Your task to perform on an android device: open app "Google Find My Device" (install if not already installed) Image 0: 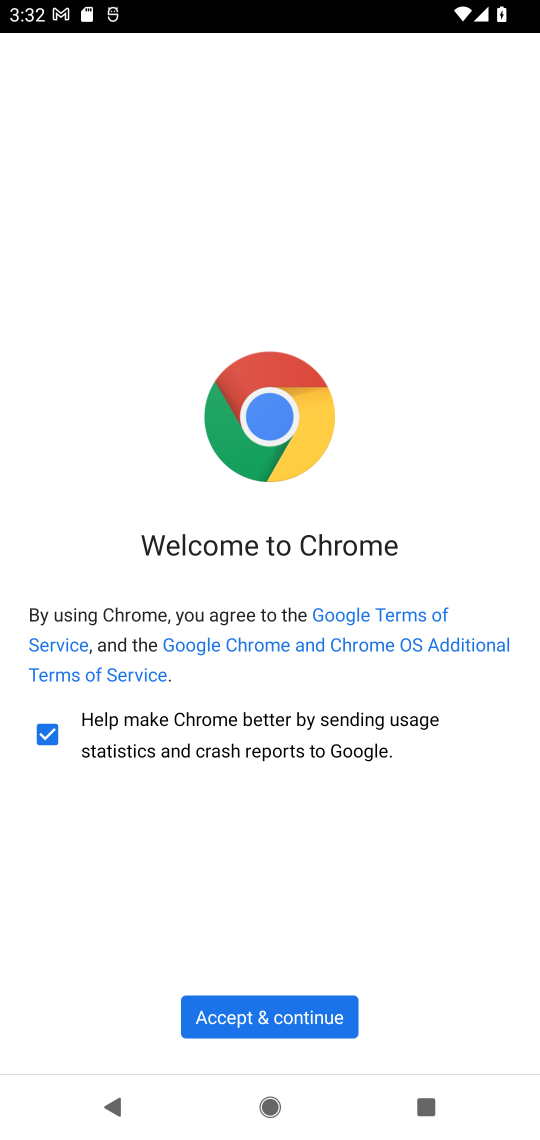
Step 0: press home button
Your task to perform on an android device: open app "Google Find My Device" (install if not already installed) Image 1: 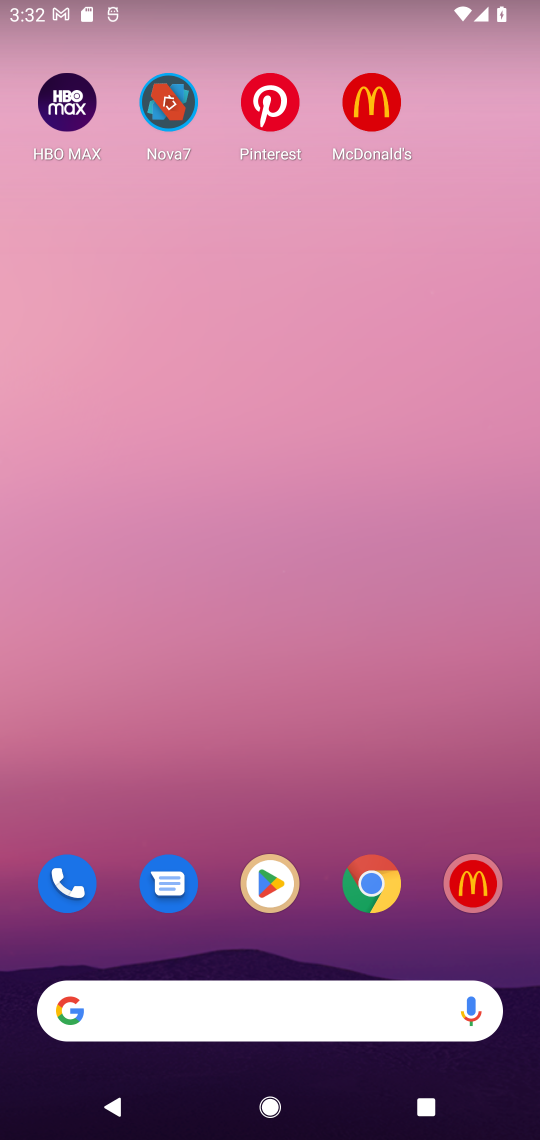
Step 1: drag from (255, 974) to (304, 518)
Your task to perform on an android device: open app "Google Find My Device" (install if not already installed) Image 2: 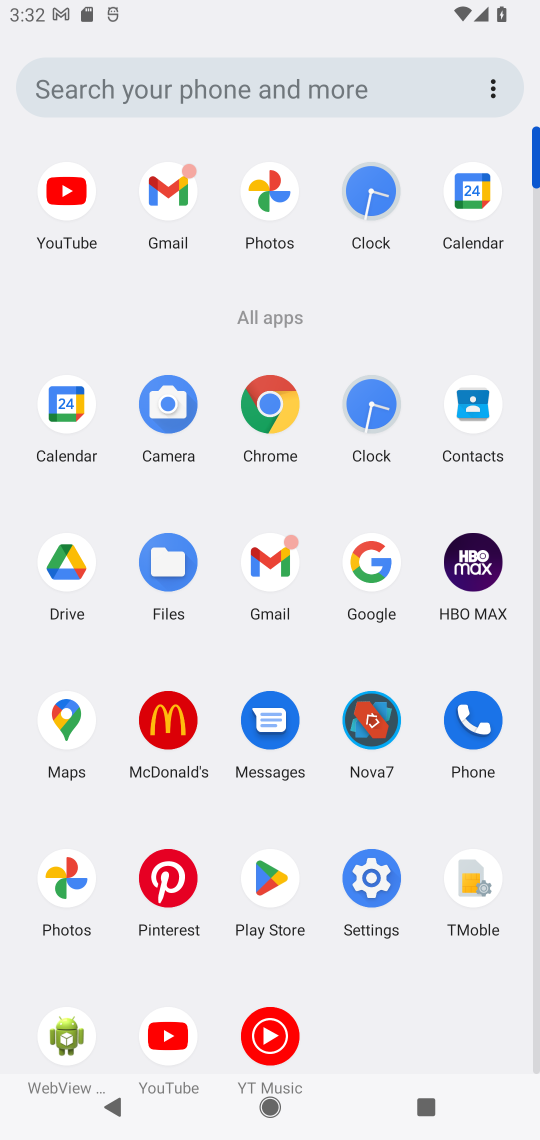
Step 2: click (254, 888)
Your task to perform on an android device: open app "Google Find My Device" (install if not already installed) Image 3: 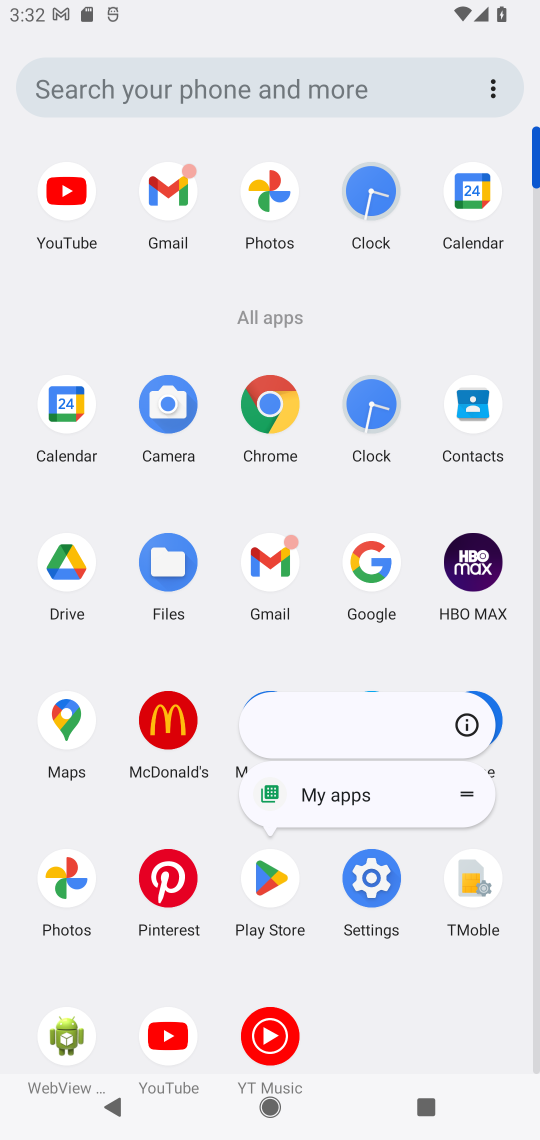
Step 3: click (271, 890)
Your task to perform on an android device: open app "Google Find My Device" (install if not already installed) Image 4: 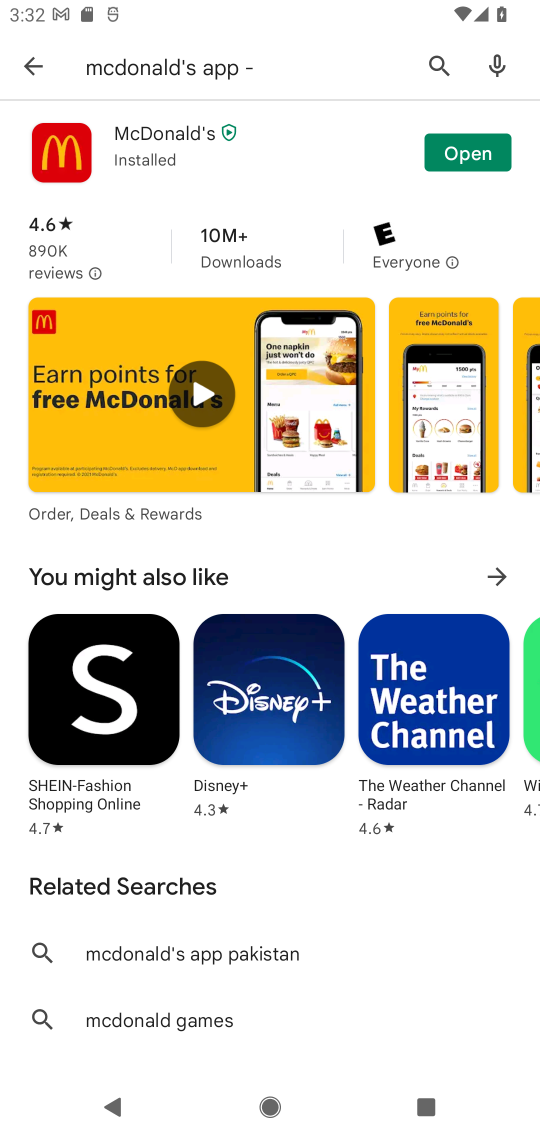
Step 4: click (437, 62)
Your task to perform on an android device: open app "Google Find My Device" (install if not already installed) Image 5: 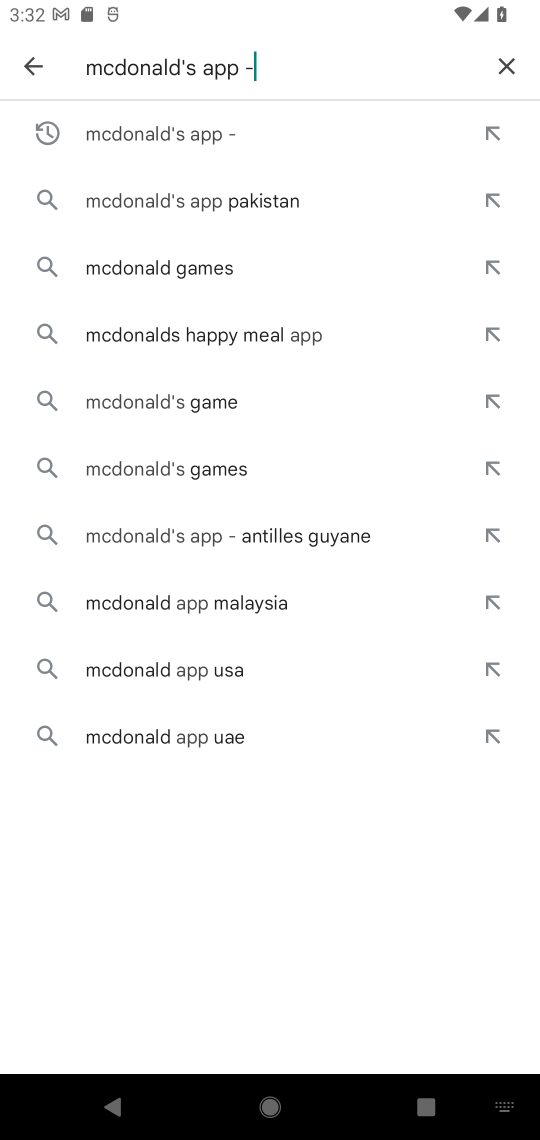
Step 5: click (511, 63)
Your task to perform on an android device: open app "Google Find My Device" (install if not already installed) Image 6: 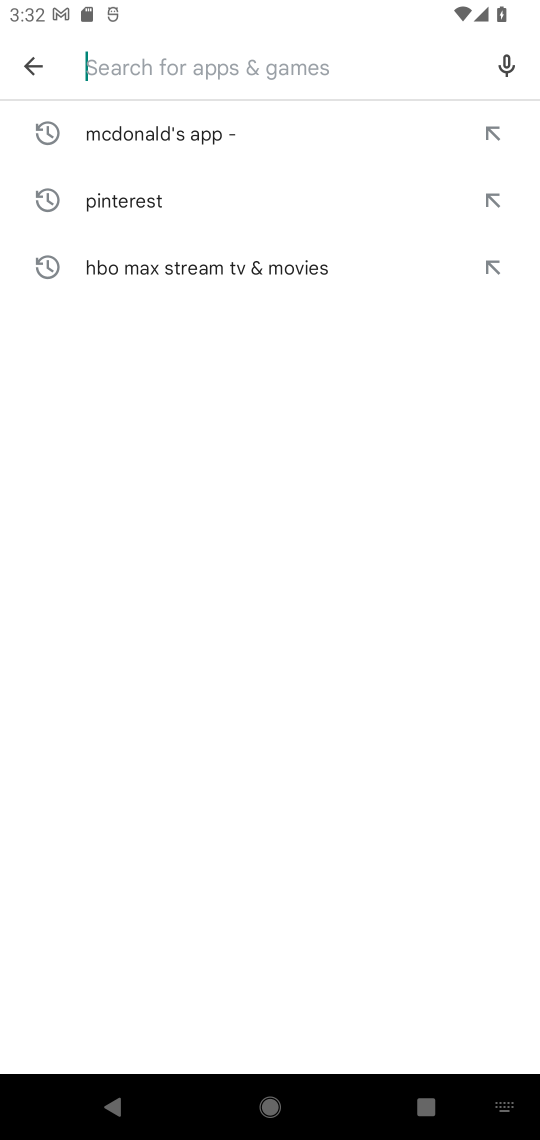
Step 6: type "Google Find My Device"
Your task to perform on an android device: open app "Google Find My Device" (install if not already installed) Image 7: 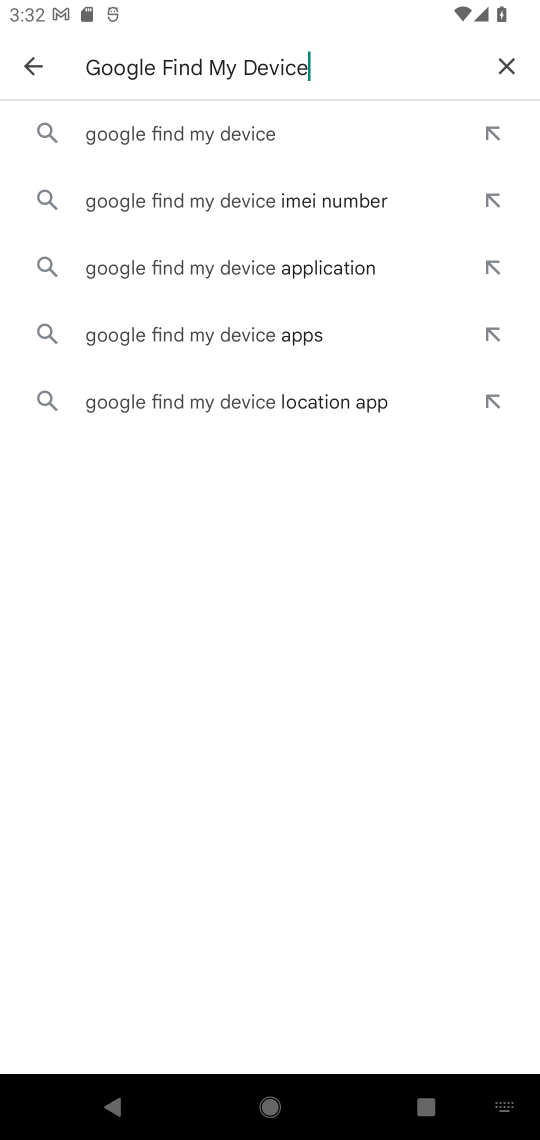
Step 7: click (204, 142)
Your task to perform on an android device: open app "Google Find My Device" (install if not already installed) Image 8: 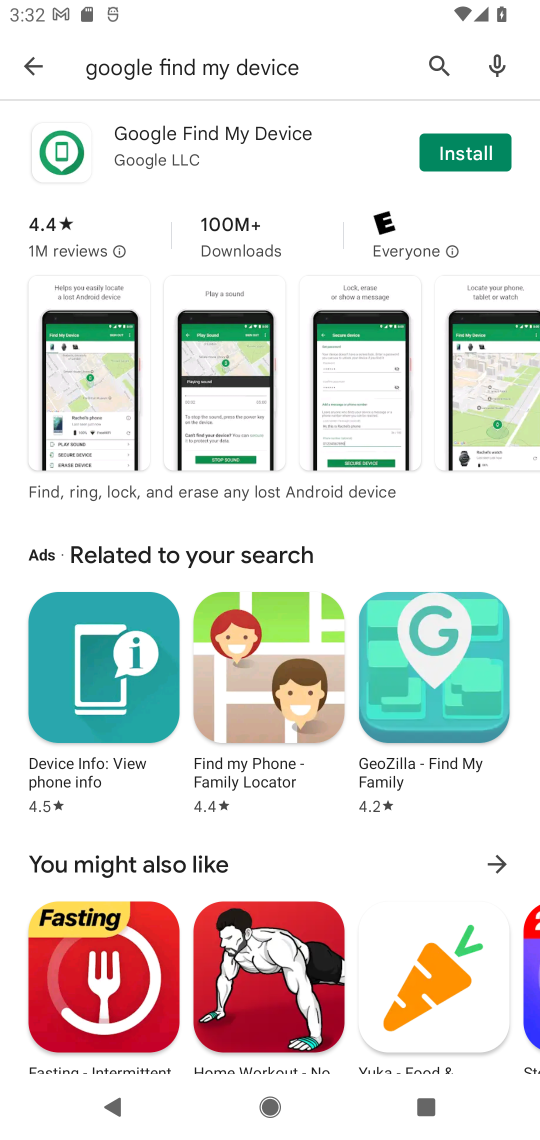
Step 8: click (466, 151)
Your task to perform on an android device: open app "Google Find My Device" (install if not already installed) Image 9: 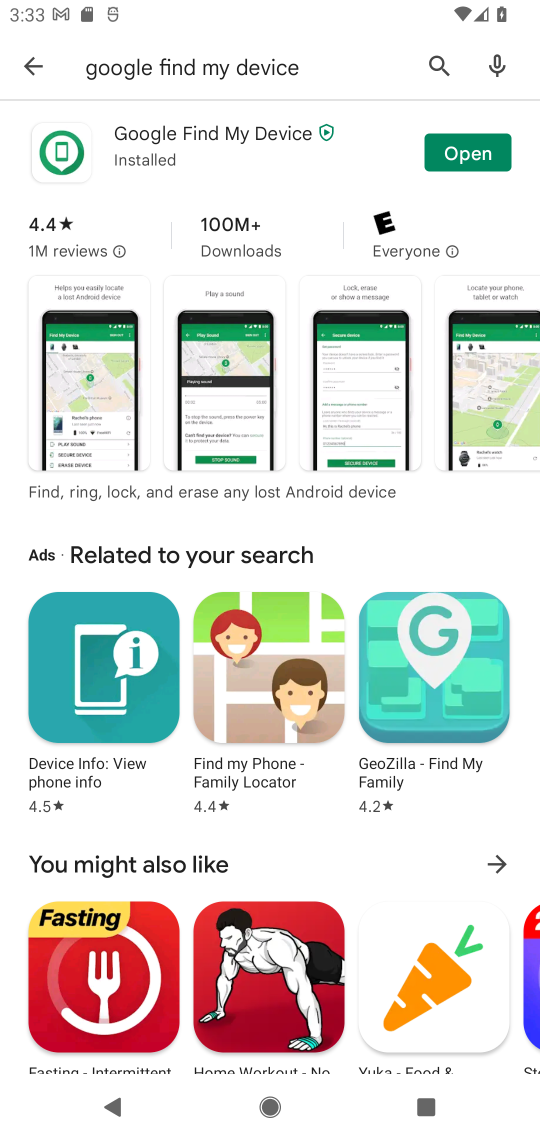
Step 9: click (463, 157)
Your task to perform on an android device: open app "Google Find My Device" (install if not already installed) Image 10: 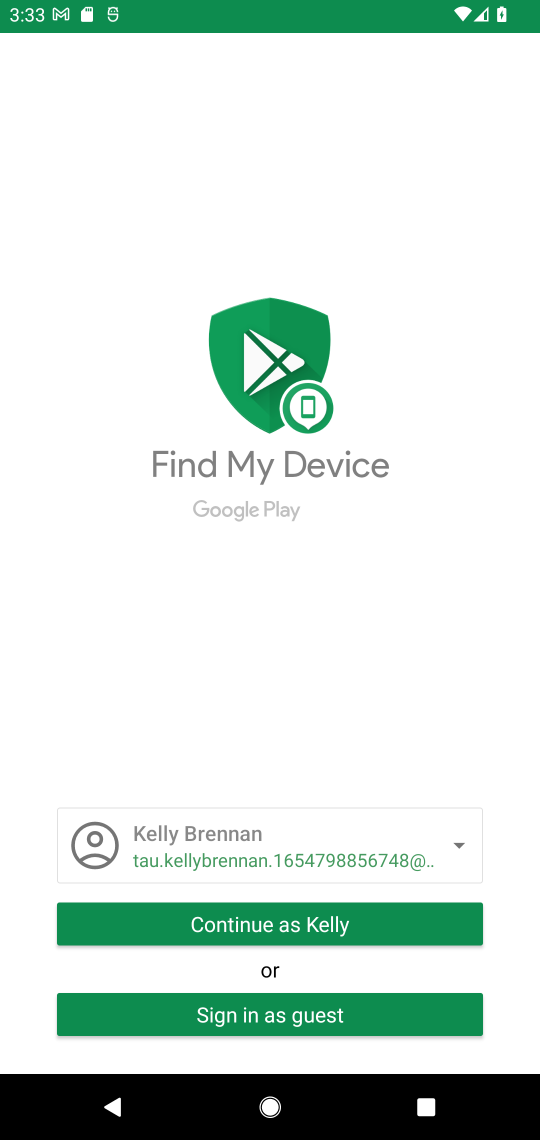
Step 10: task complete